Your task to perform on an android device: uninstall "Expedia: Hotels, Flights & Car" Image 0: 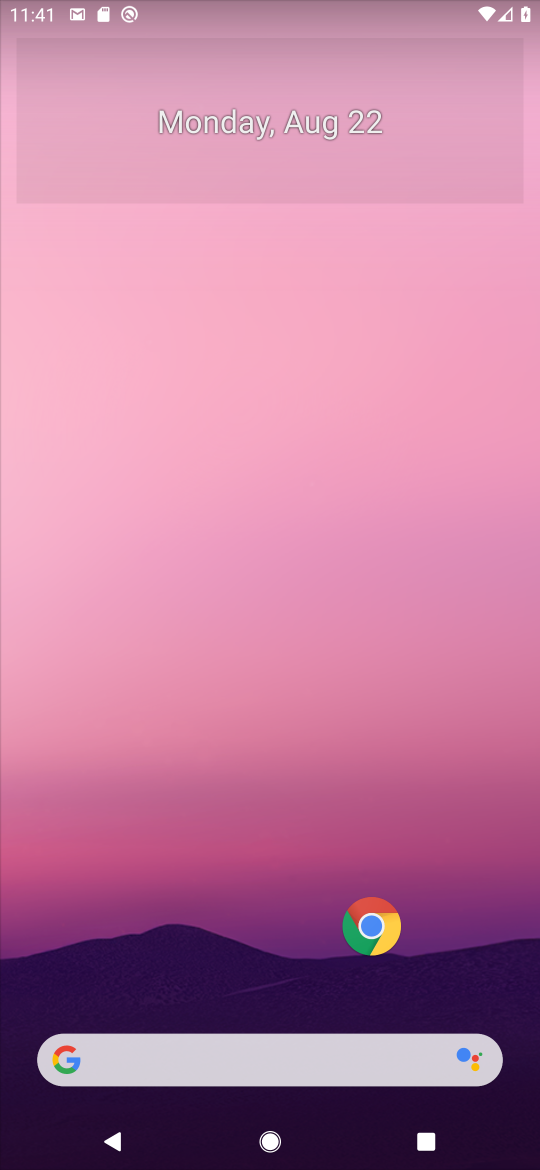
Step 0: drag from (208, 1007) to (408, 48)
Your task to perform on an android device: uninstall "Expedia: Hotels, Flights & Car" Image 1: 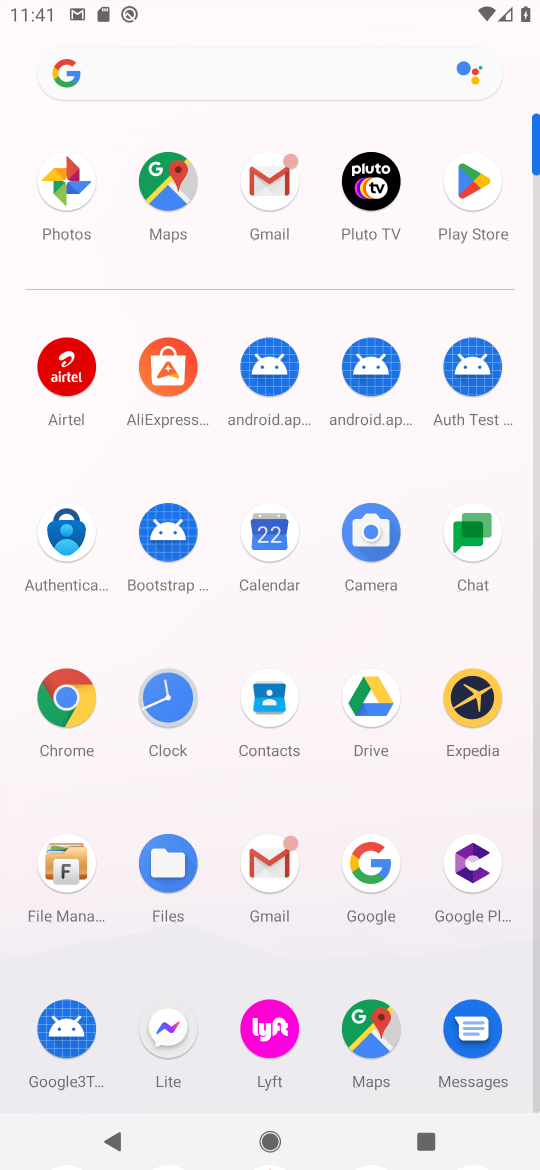
Step 1: click (481, 180)
Your task to perform on an android device: uninstall "Expedia: Hotels, Flights & Car" Image 2: 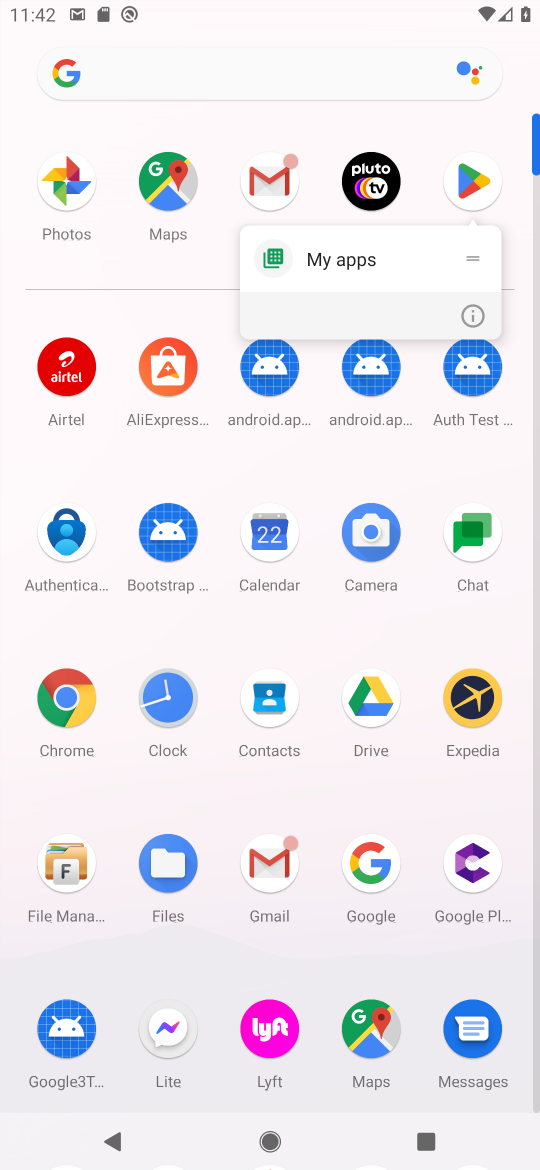
Step 2: click (481, 178)
Your task to perform on an android device: uninstall "Expedia: Hotels, Flights & Car" Image 3: 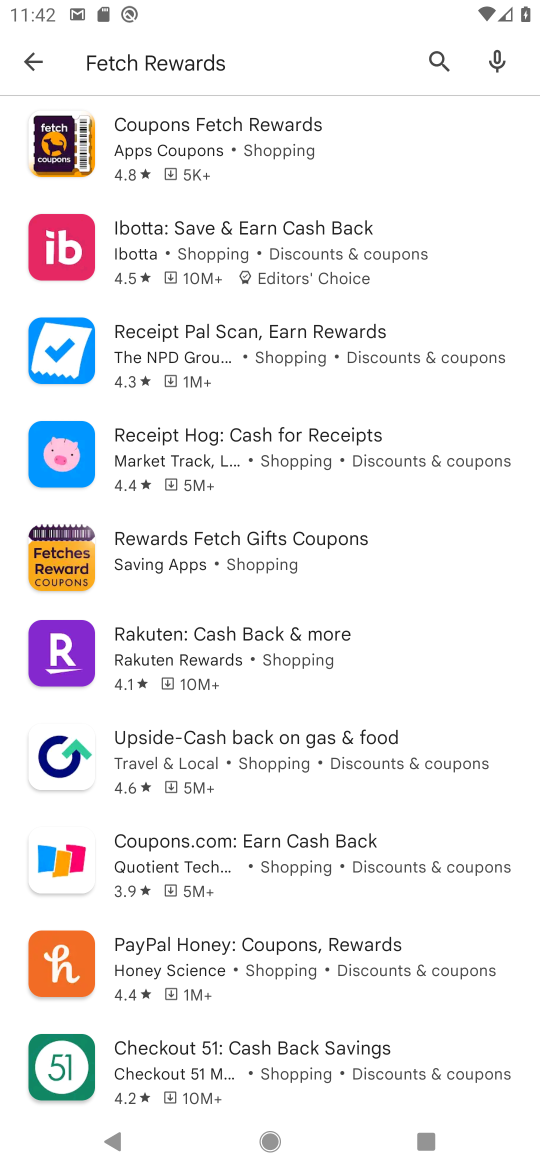
Step 3: press back button
Your task to perform on an android device: uninstall "Expedia: Hotels, Flights & Car" Image 4: 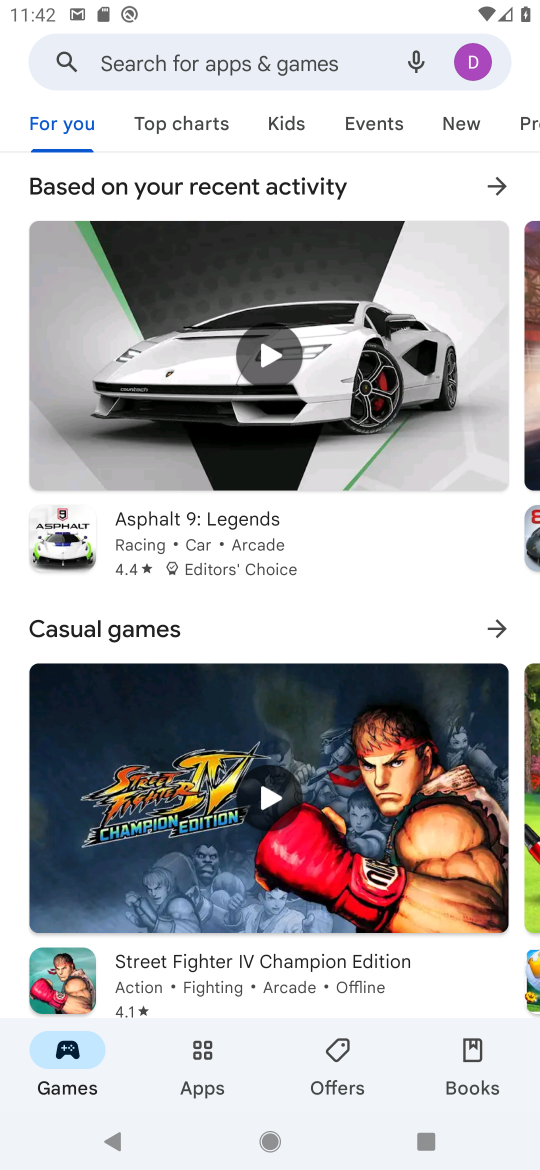
Step 4: click (223, 54)
Your task to perform on an android device: uninstall "Expedia: Hotels, Flights & Car" Image 5: 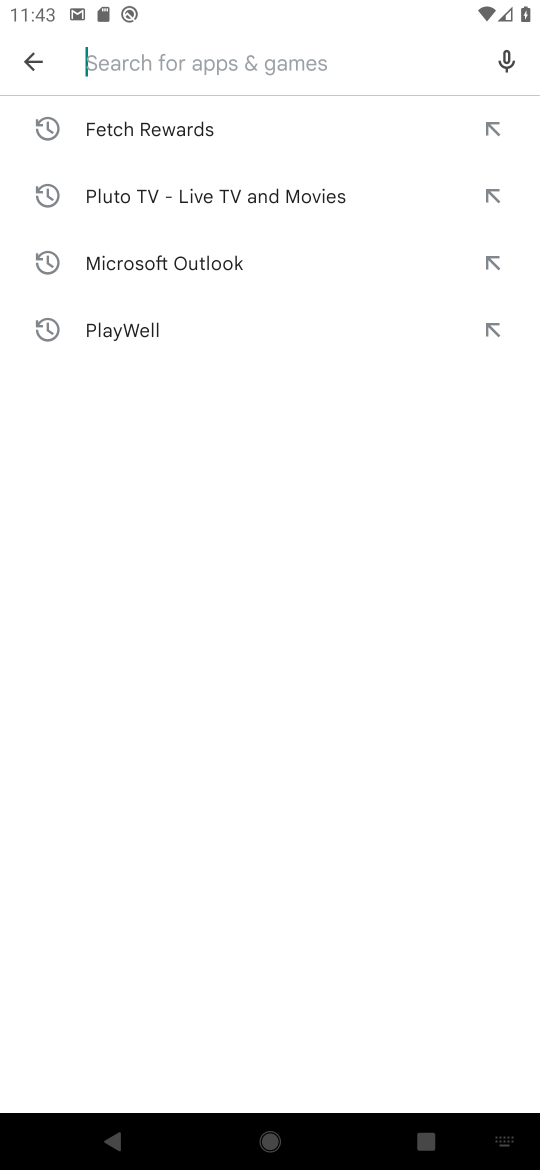
Step 5: type "Expedia: Hotels, Flights & Car"
Your task to perform on an android device: uninstall "Expedia: Hotels, Flights & Car" Image 6: 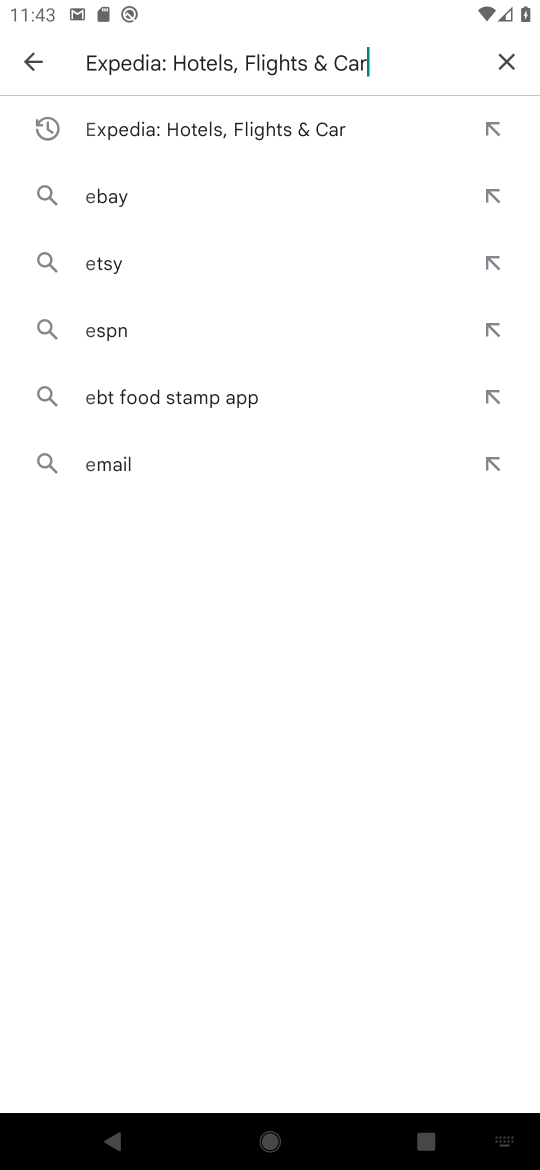
Step 6: press enter
Your task to perform on an android device: uninstall "Expedia: Hotels, Flights & Car" Image 7: 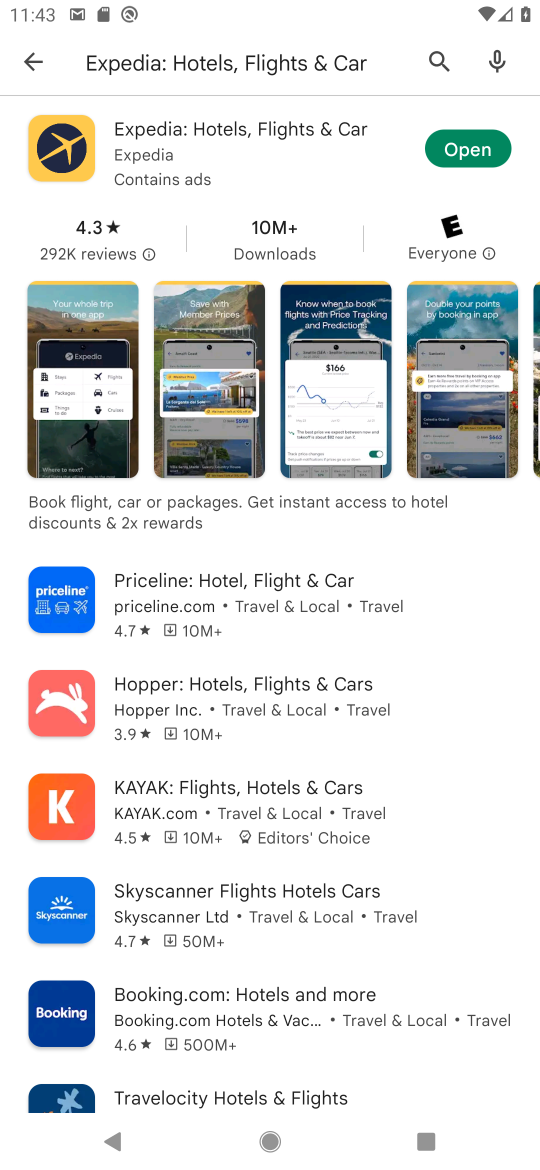
Step 7: click (99, 152)
Your task to perform on an android device: uninstall "Expedia: Hotels, Flights & Car" Image 8: 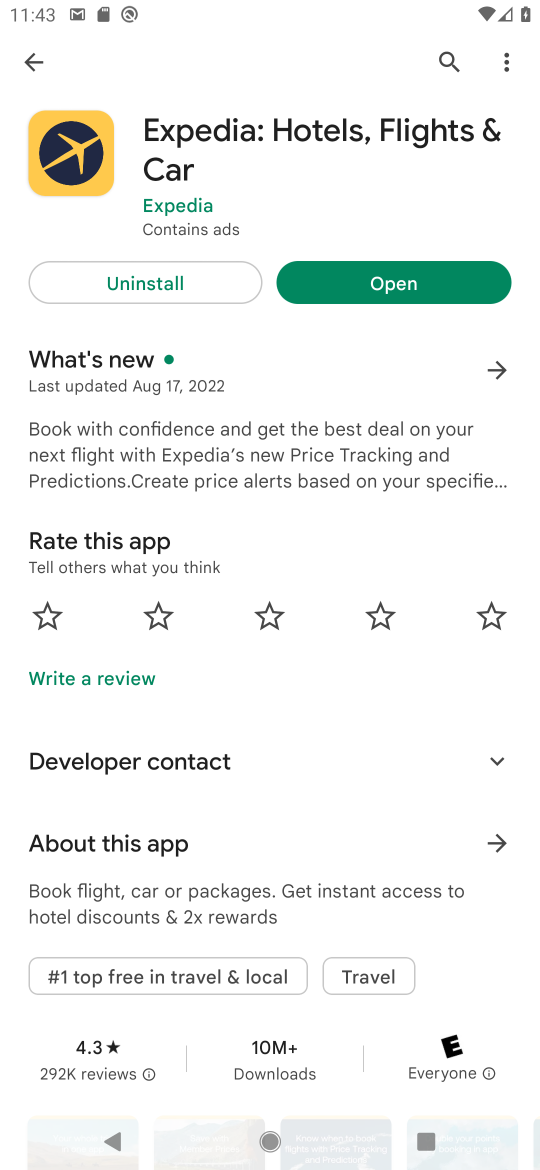
Step 8: click (152, 276)
Your task to perform on an android device: uninstall "Expedia: Hotels, Flights & Car" Image 9: 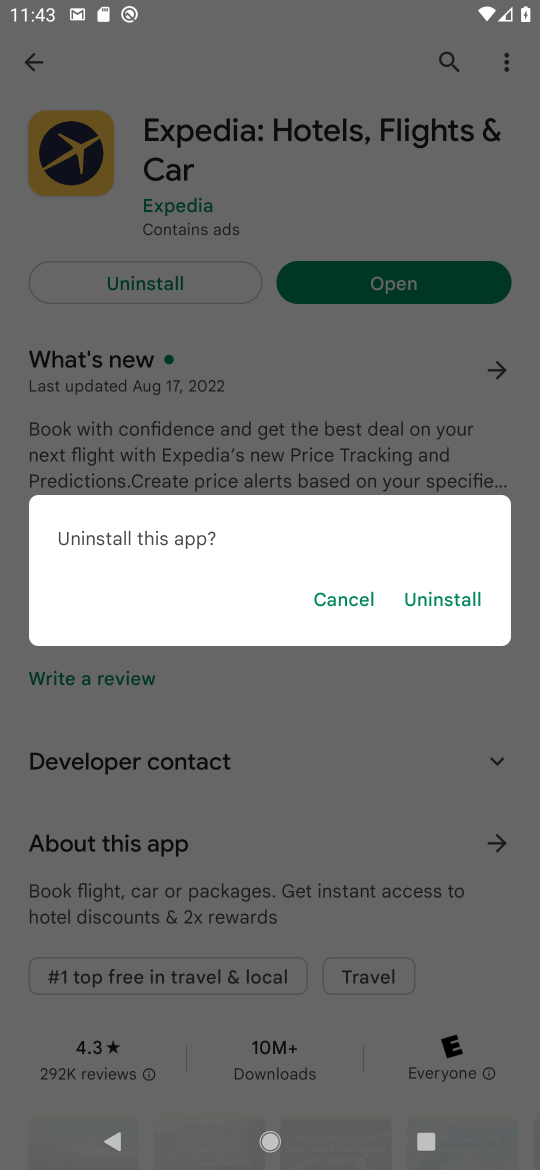
Step 9: click (452, 597)
Your task to perform on an android device: uninstall "Expedia: Hotels, Flights & Car" Image 10: 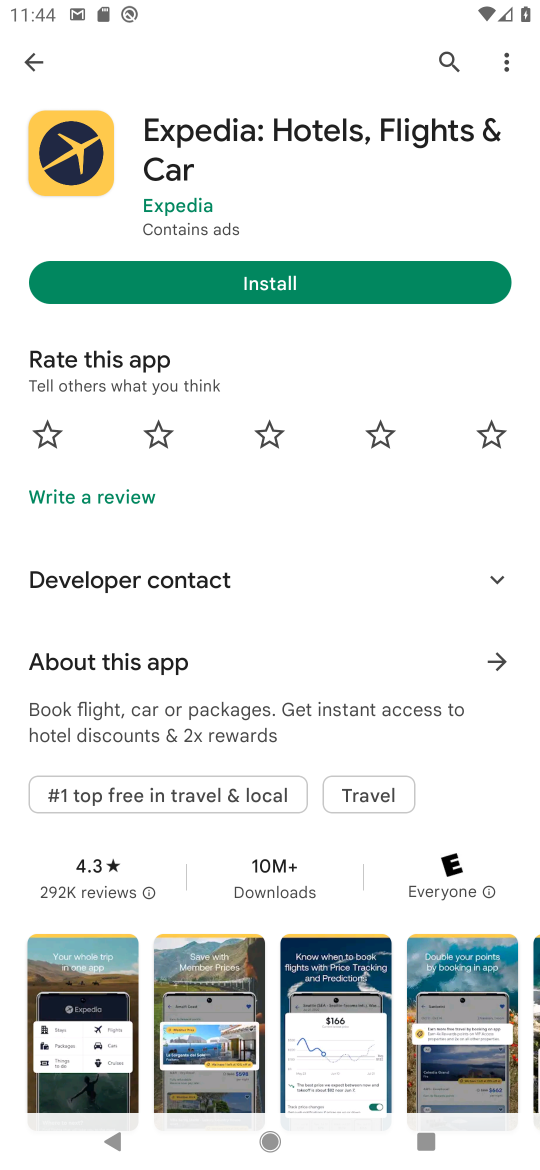
Step 10: task complete